Your task to perform on an android device: set an alarm Image 0: 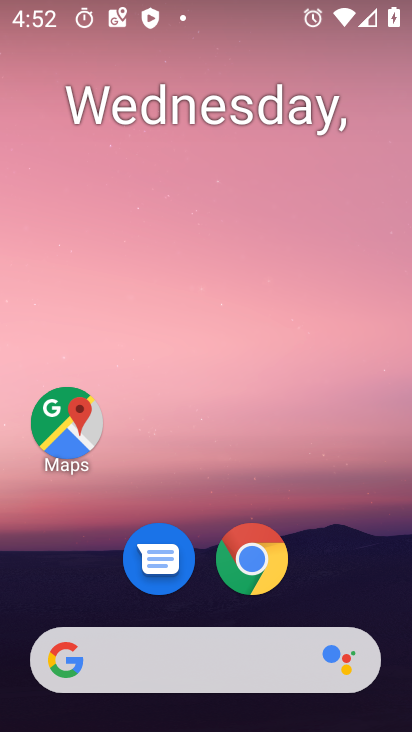
Step 0: drag from (375, 576) to (286, 0)
Your task to perform on an android device: set an alarm Image 1: 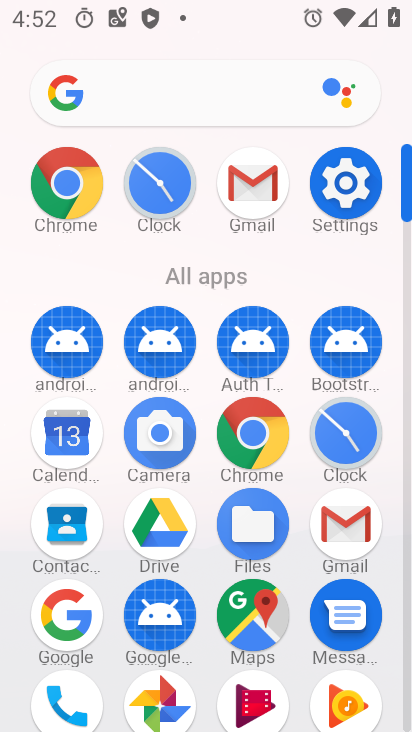
Step 1: click (161, 176)
Your task to perform on an android device: set an alarm Image 2: 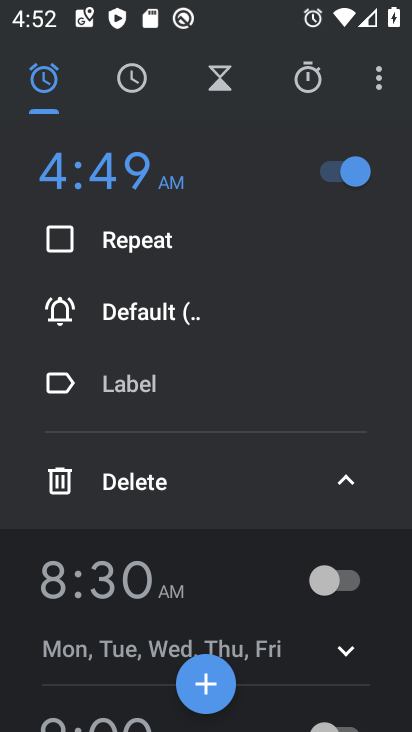
Step 2: click (211, 689)
Your task to perform on an android device: set an alarm Image 3: 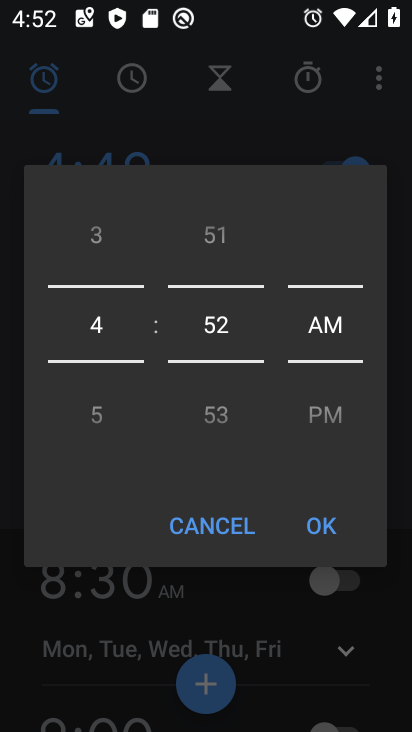
Step 3: click (319, 535)
Your task to perform on an android device: set an alarm Image 4: 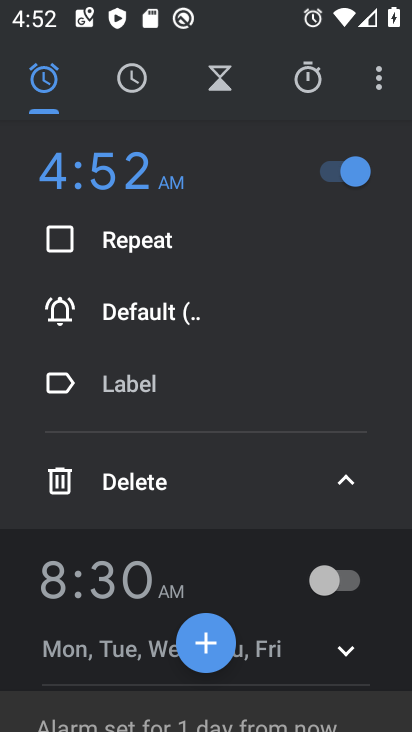
Step 4: task complete